Your task to perform on an android device: change your default location settings in chrome Image 0: 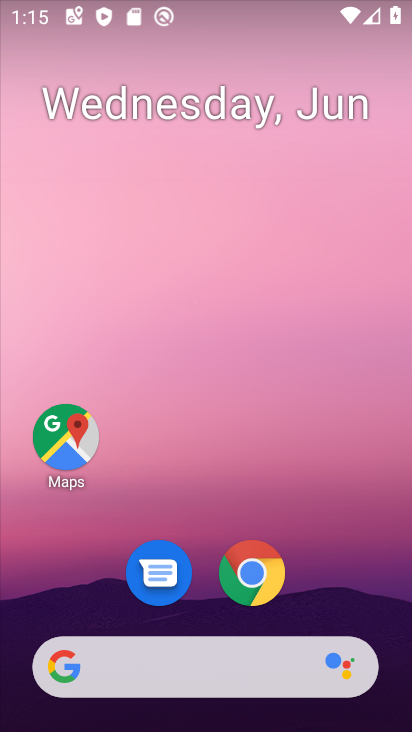
Step 0: drag from (357, 558) to (391, 91)
Your task to perform on an android device: change your default location settings in chrome Image 1: 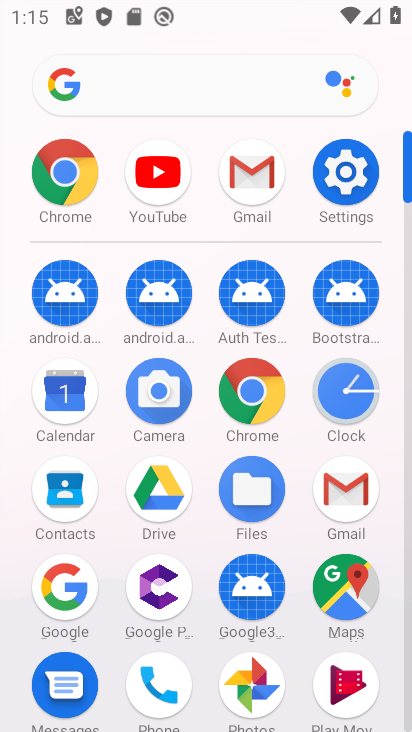
Step 1: drag from (293, 631) to (306, 339)
Your task to perform on an android device: change your default location settings in chrome Image 2: 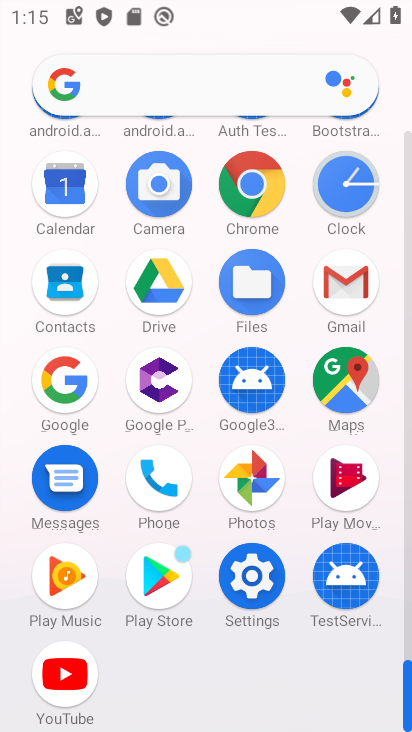
Step 2: click (238, 154)
Your task to perform on an android device: change your default location settings in chrome Image 3: 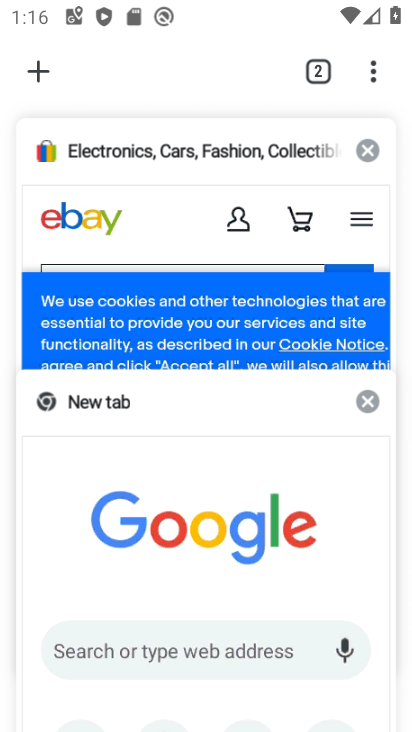
Step 3: click (47, 75)
Your task to perform on an android device: change your default location settings in chrome Image 4: 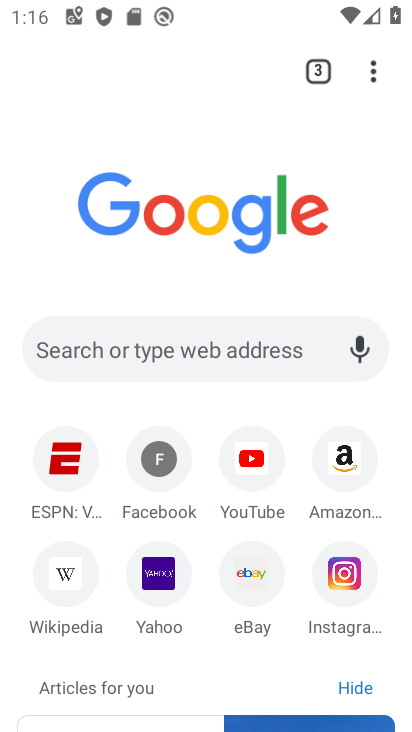
Step 4: drag from (371, 80) to (214, 610)
Your task to perform on an android device: change your default location settings in chrome Image 5: 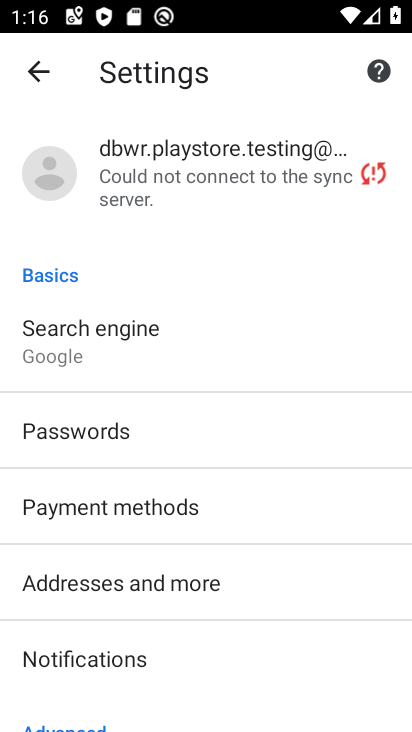
Step 5: drag from (265, 637) to (303, 312)
Your task to perform on an android device: change your default location settings in chrome Image 6: 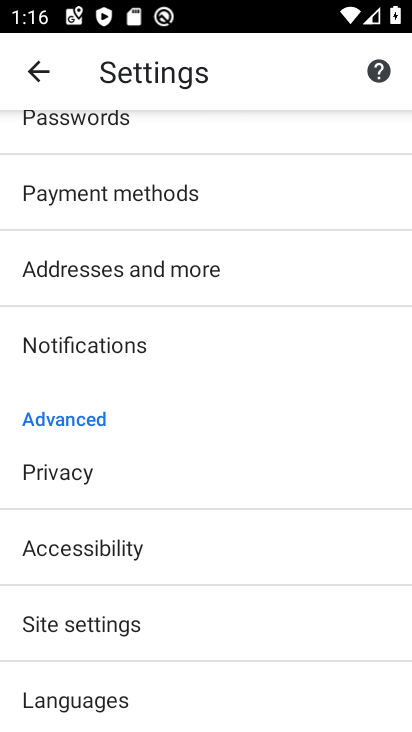
Step 6: drag from (260, 689) to (290, 341)
Your task to perform on an android device: change your default location settings in chrome Image 7: 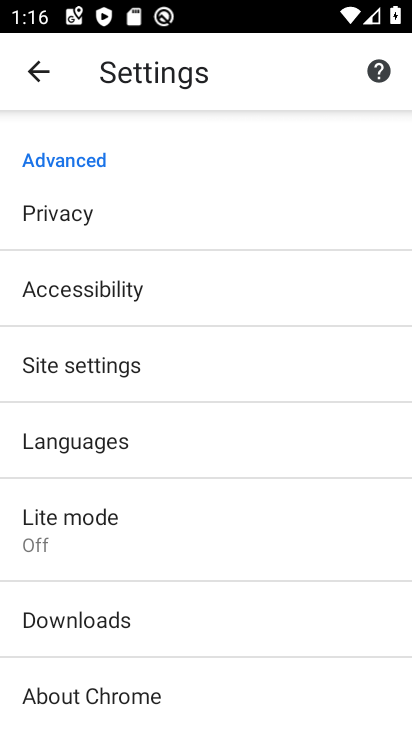
Step 7: drag from (234, 584) to (245, 291)
Your task to perform on an android device: change your default location settings in chrome Image 8: 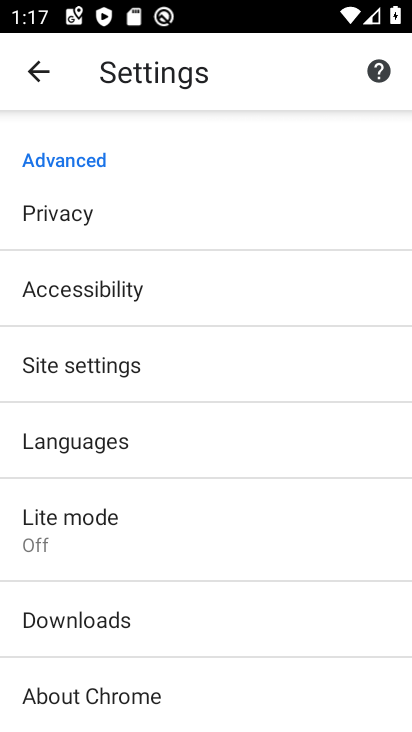
Step 8: drag from (266, 580) to (261, 354)
Your task to perform on an android device: change your default location settings in chrome Image 9: 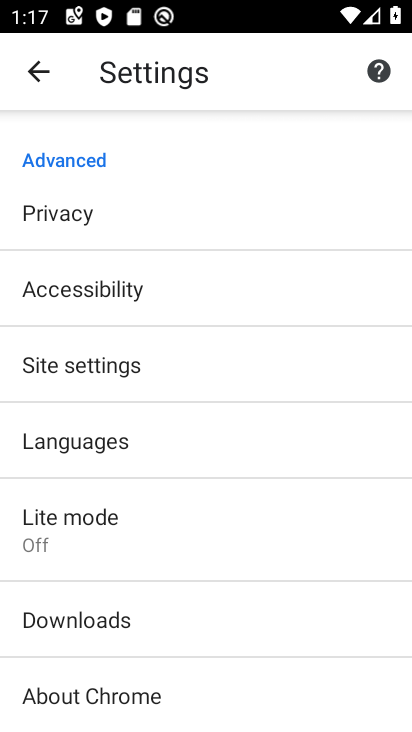
Step 9: click (165, 364)
Your task to perform on an android device: change your default location settings in chrome Image 10: 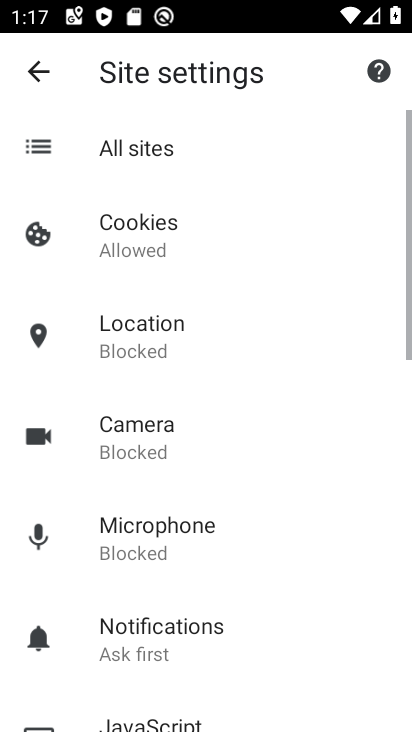
Step 10: click (174, 329)
Your task to perform on an android device: change your default location settings in chrome Image 11: 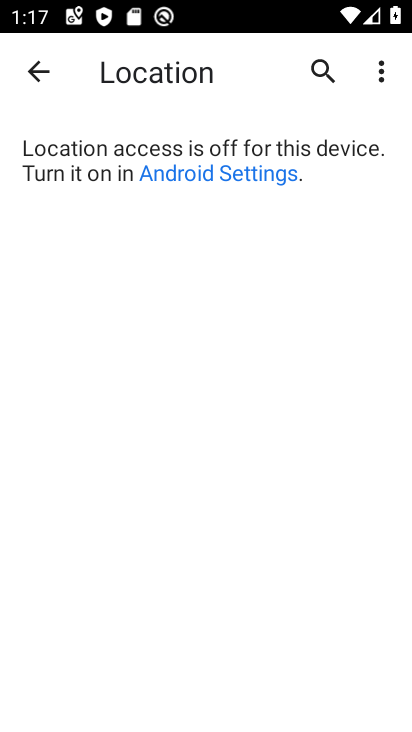
Step 11: task complete